Your task to perform on an android device: turn on improve location accuracy Image 0: 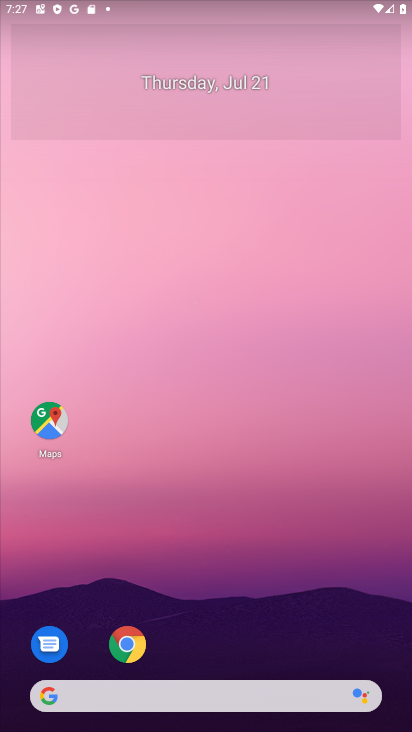
Step 0: drag from (248, 595) to (234, 222)
Your task to perform on an android device: turn on improve location accuracy Image 1: 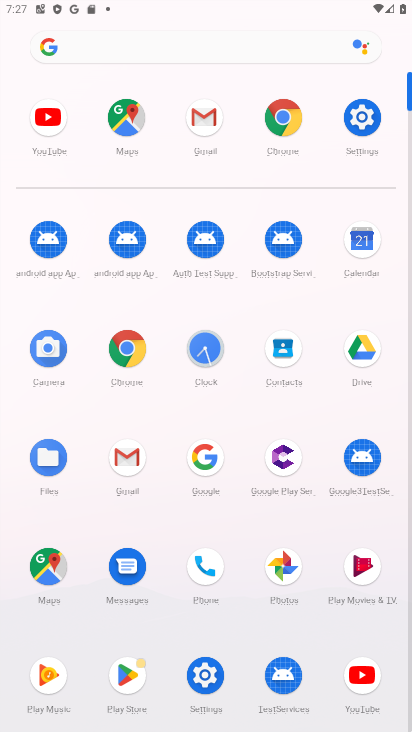
Step 1: click (369, 108)
Your task to perform on an android device: turn on improve location accuracy Image 2: 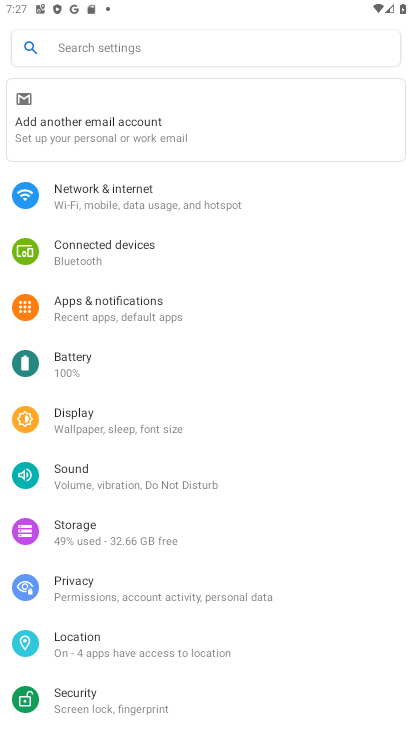
Step 2: click (84, 634)
Your task to perform on an android device: turn on improve location accuracy Image 3: 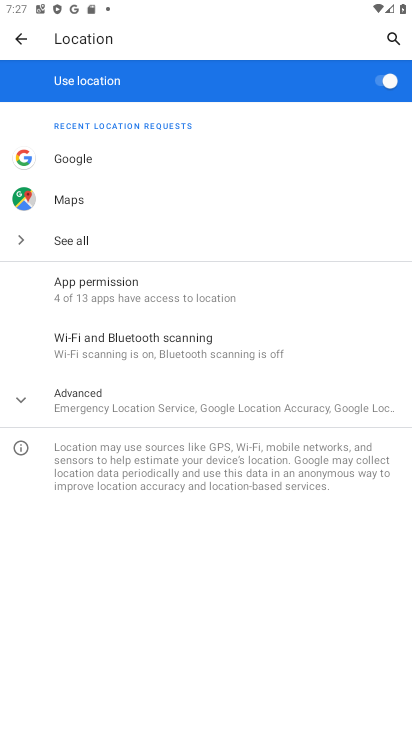
Step 3: task complete